Your task to perform on an android device: Search for sushi restaurants on Maps Image 0: 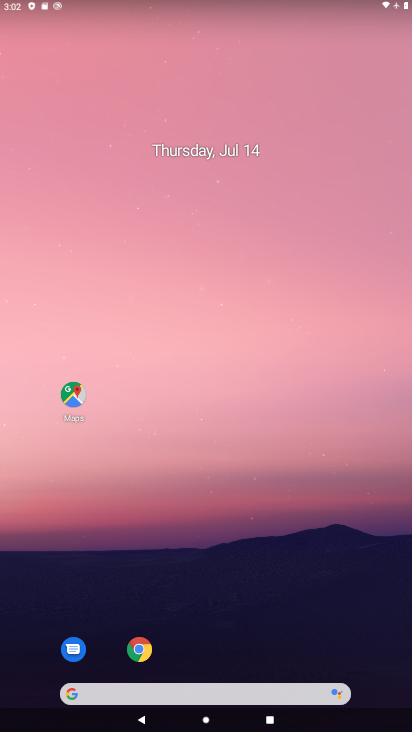
Step 0: click (68, 404)
Your task to perform on an android device: Search for sushi restaurants on Maps Image 1: 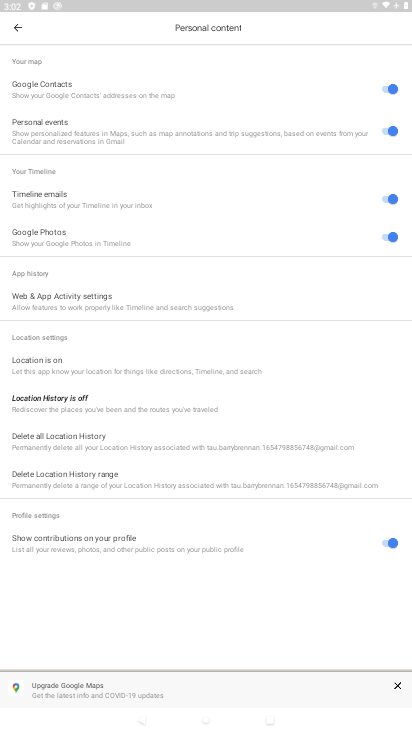
Step 1: click (15, 26)
Your task to perform on an android device: Search for sushi restaurants on Maps Image 2: 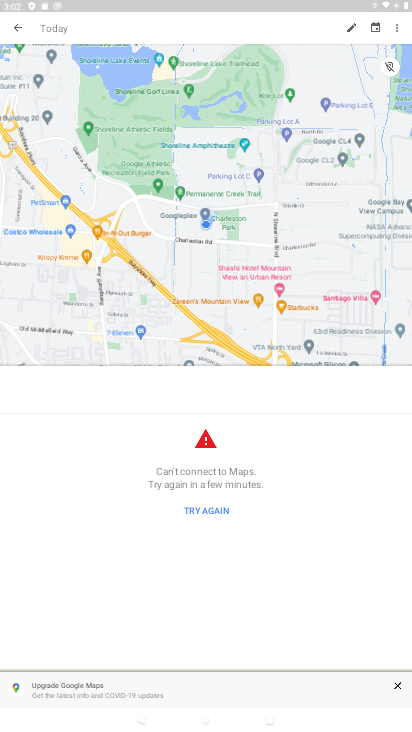
Step 2: click (16, 22)
Your task to perform on an android device: Search for sushi restaurants on Maps Image 3: 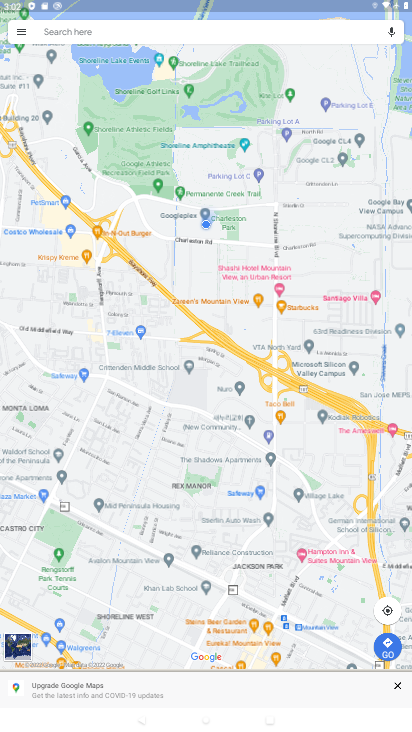
Step 3: click (145, 31)
Your task to perform on an android device: Search for sushi restaurants on Maps Image 4: 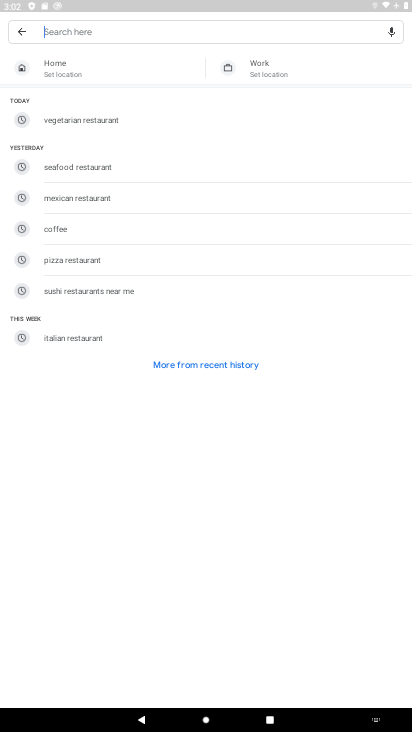
Step 4: type "sushi restaurants"
Your task to perform on an android device: Search for sushi restaurants on Maps Image 5: 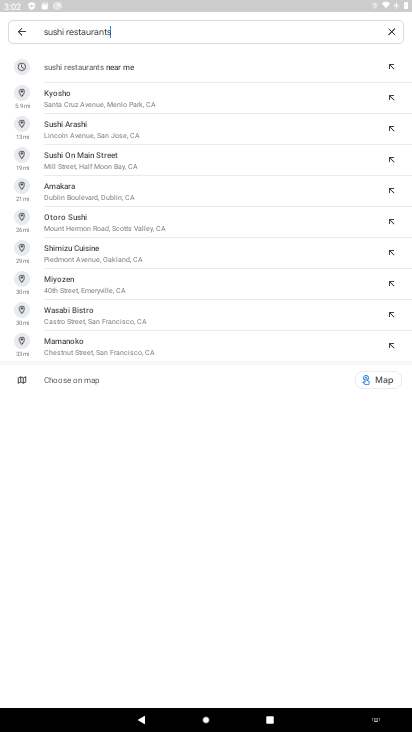
Step 5: click (119, 70)
Your task to perform on an android device: Search for sushi restaurants on Maps Image 6: 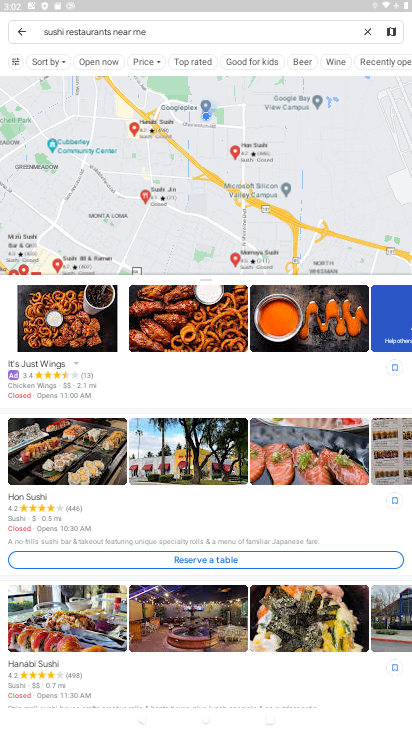
Step 6: task complete